Your task to perform on an android device: Check the price on the Dyson V11 Motorhead on Best Buy Image 0: 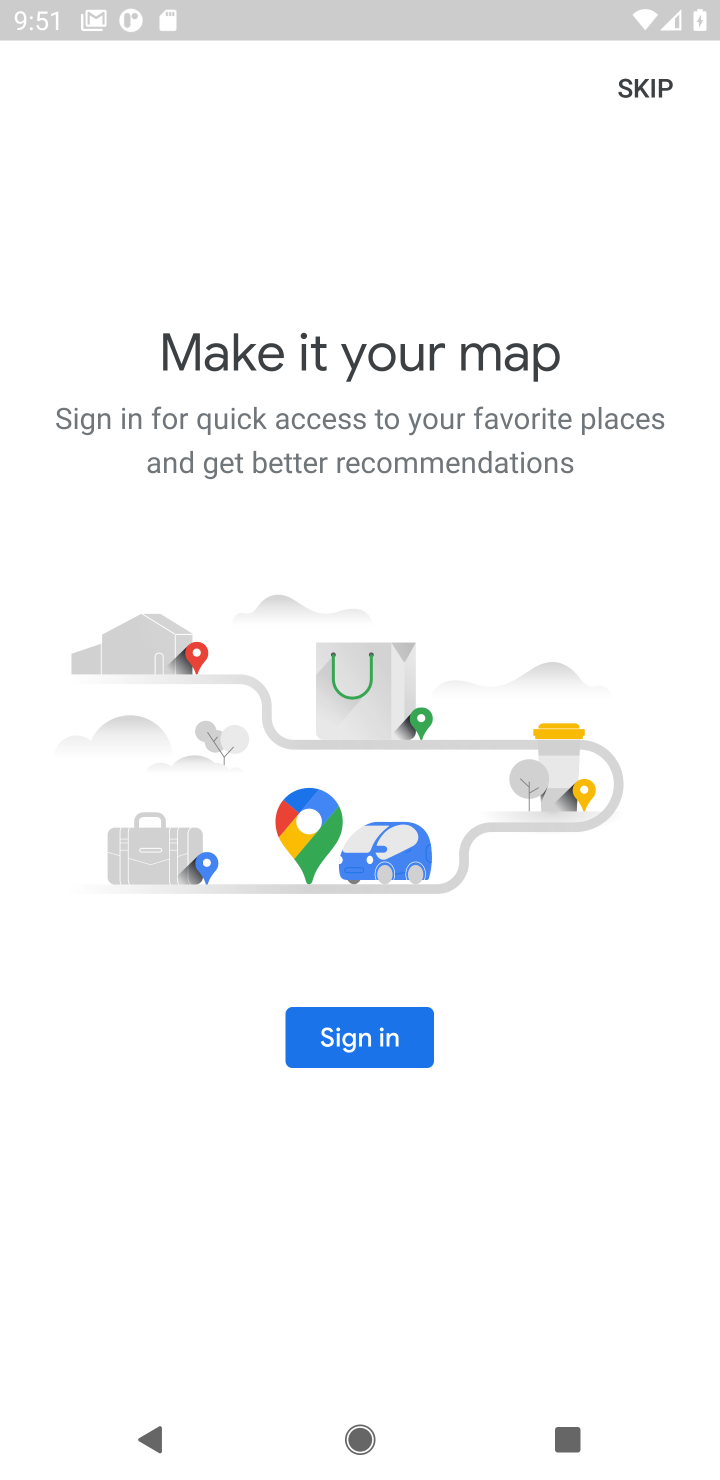
Step 0: click (636, 77)
Your task to perform on an android device: Check the price on the Dyson V11 Motorhead on Best Buy Image 1: 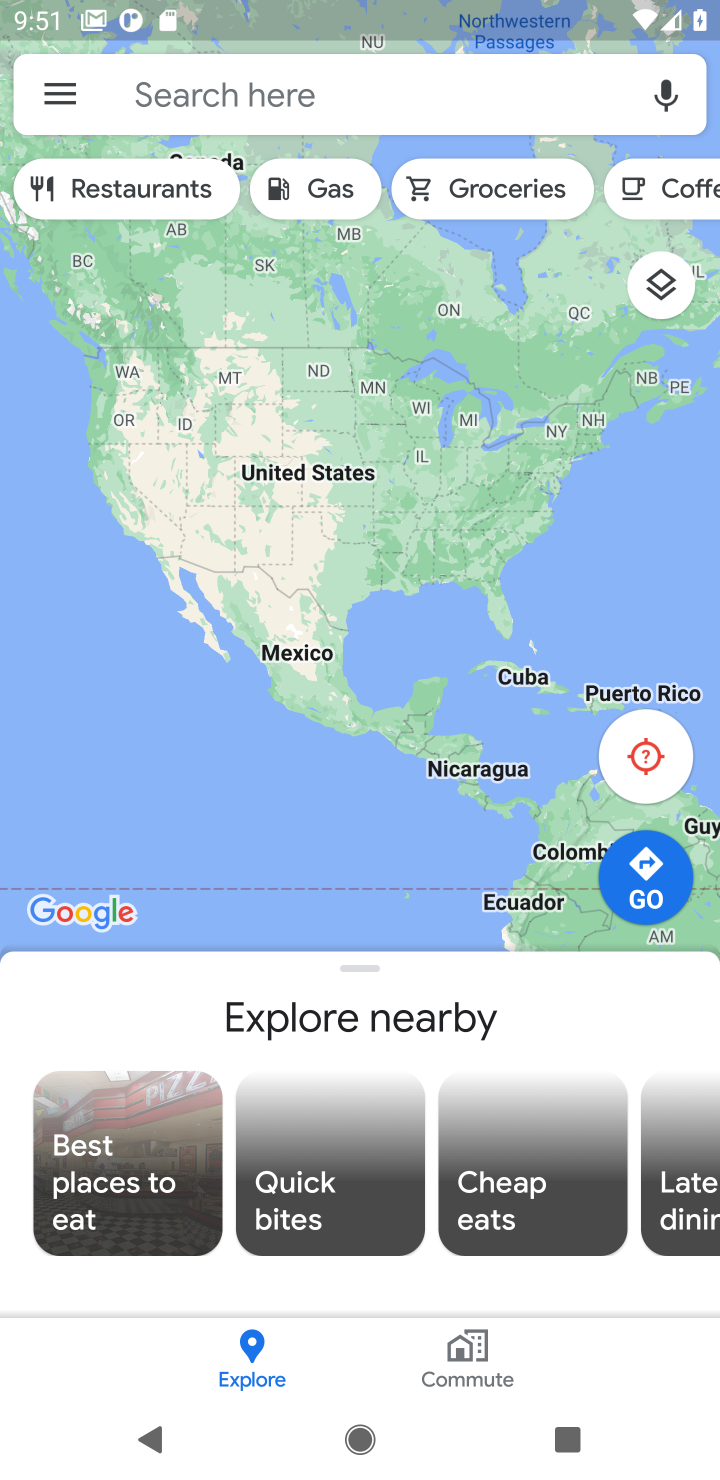
Step 1: press home button
Your task to perform on an android device: Check the price on the Dyson V11 Motorhead on Best Buy Image 2: 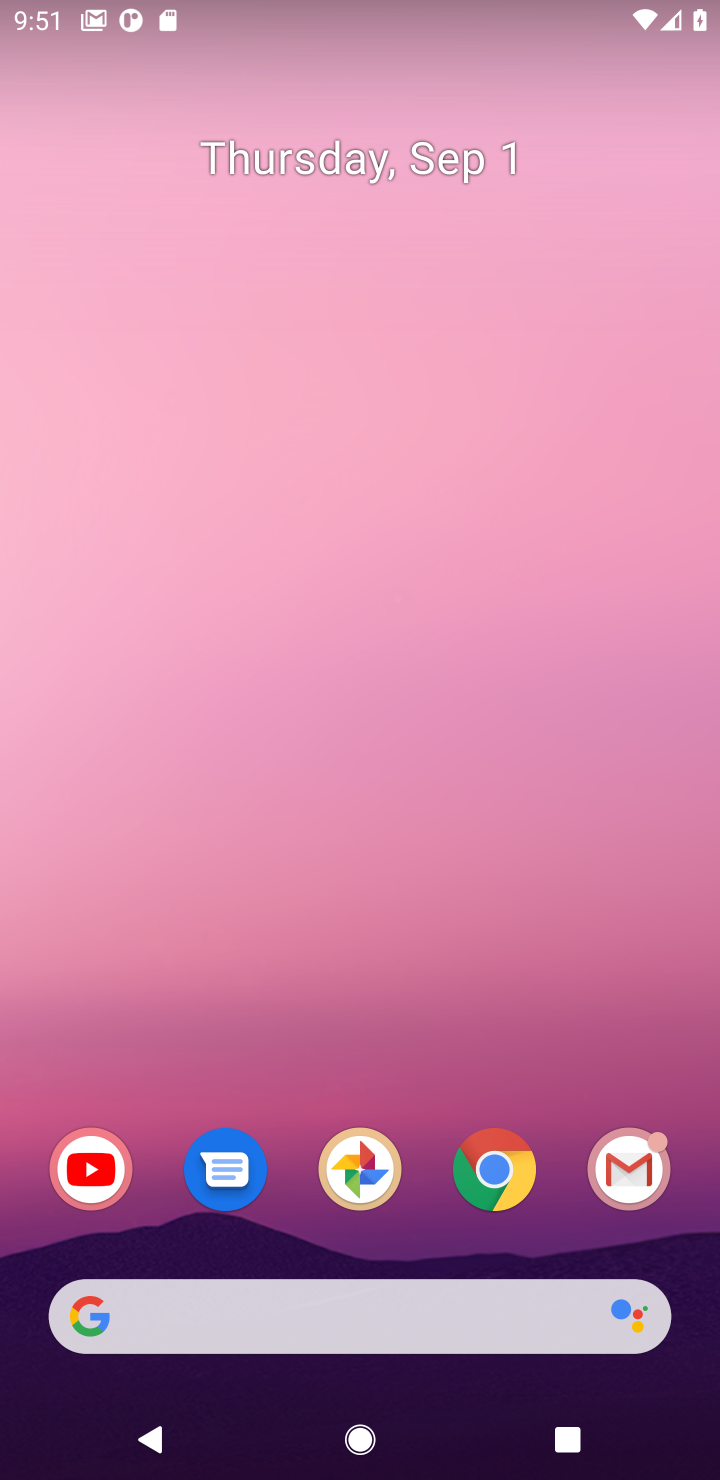
Step 2: drag from (408, 1101) to (442, 8)
Your task to perform on an android device: Check the price on the Dyson V11 Motorhead on Best Buy Image 3: 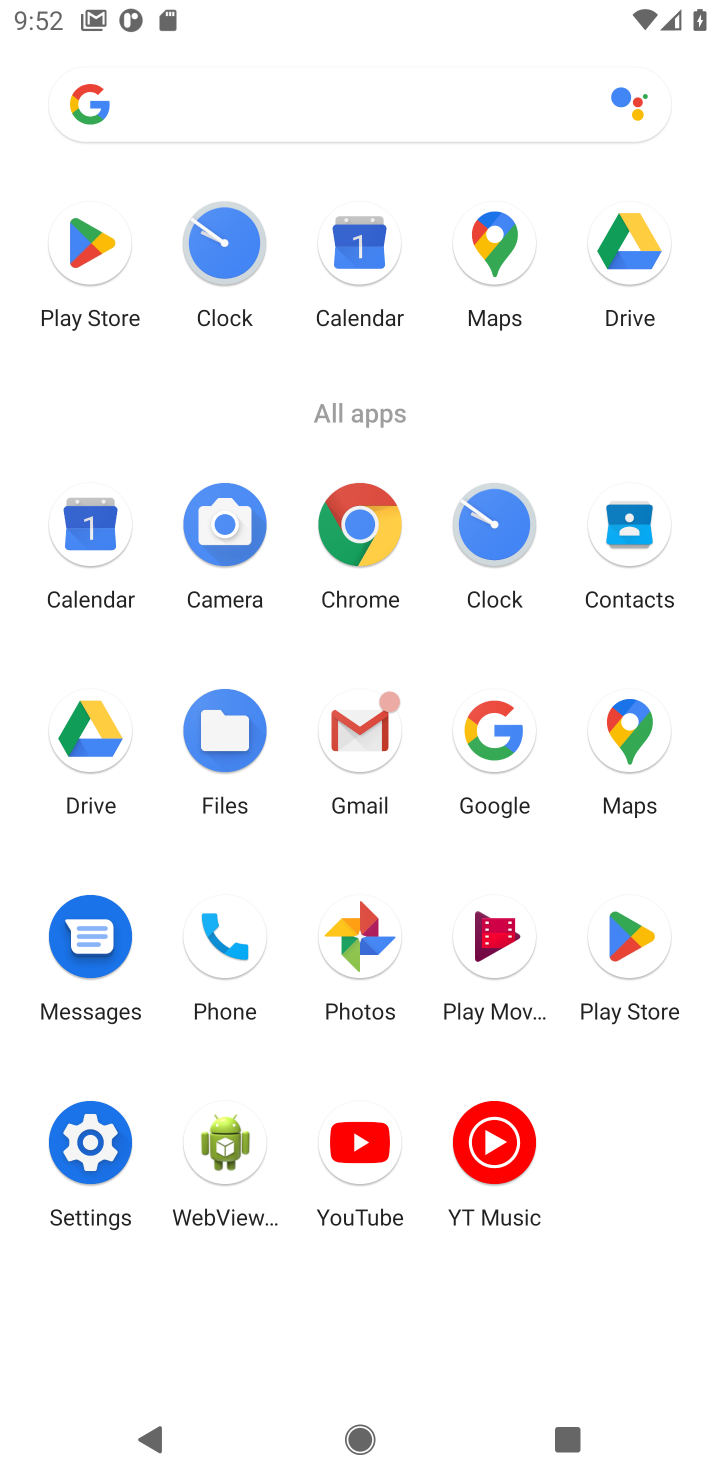
Step 3: click (353, 496)
Your task to perform on an android device: Check the price on the Dyson V11 Motorhead on Best Buy Image 4: 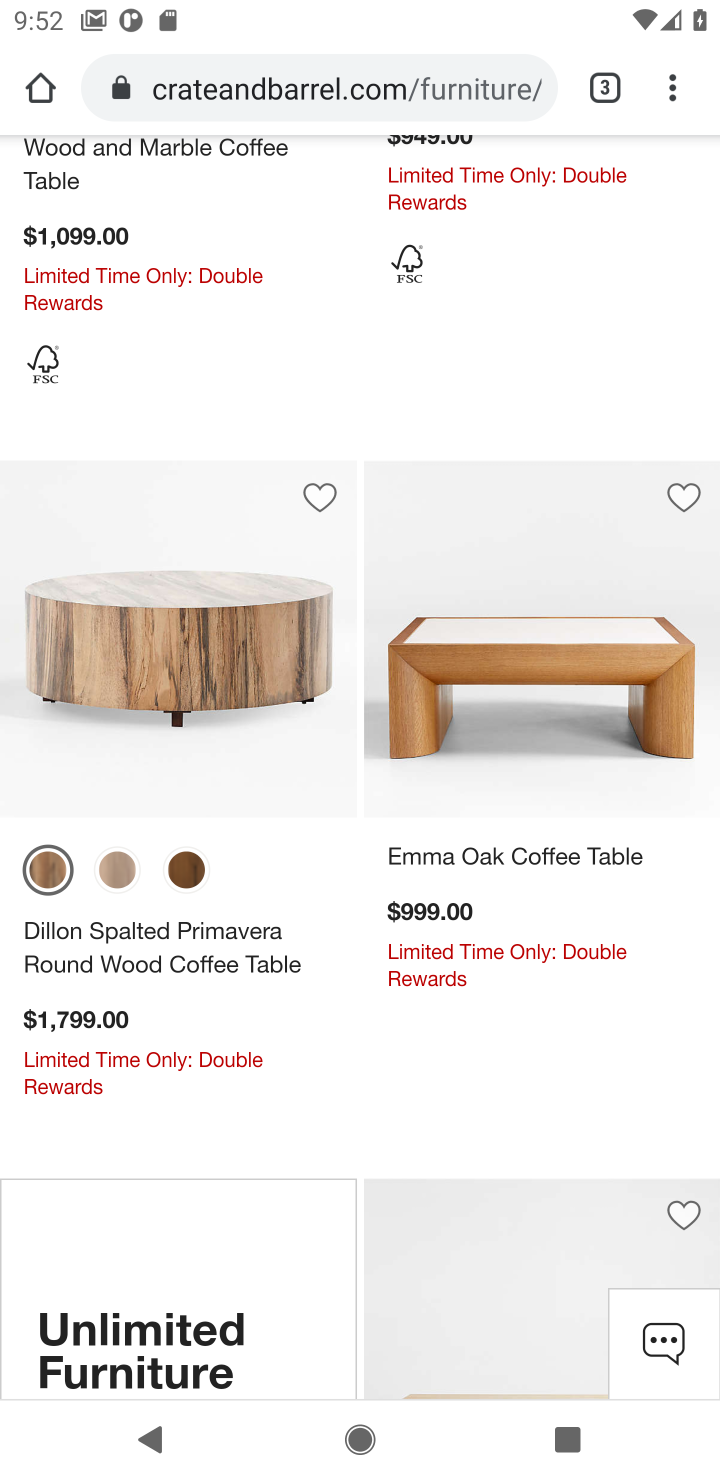
Step 4: drag from (367, 1148) to (557, 55)
Your task to perform on an android device: Check the price on the Dyson V11 Motorhead on Best Buy Image 5: 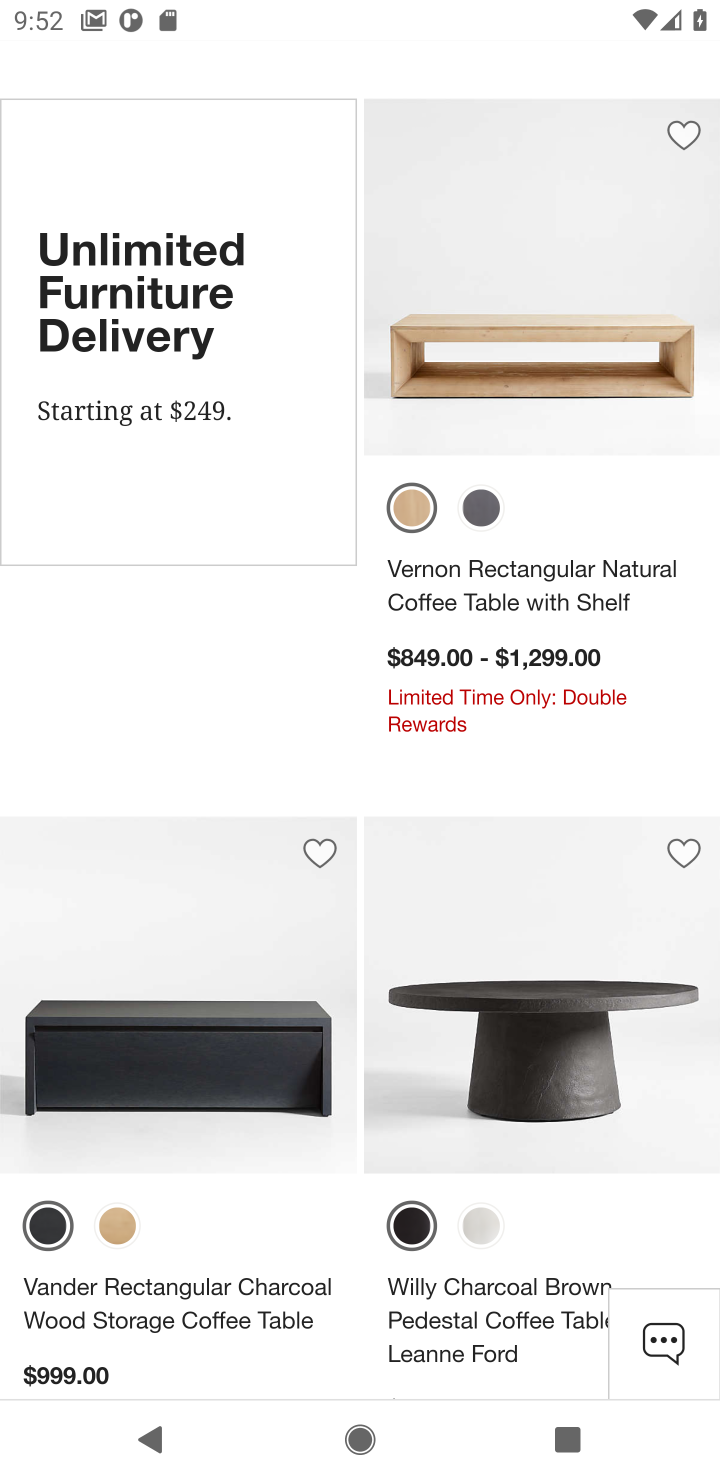
Step 5: drag from (352, 205) to (269, 1125)
Your task to perform on an android device: Check the price on the Dyson V11 Motorhead on Best Buy Image 6: 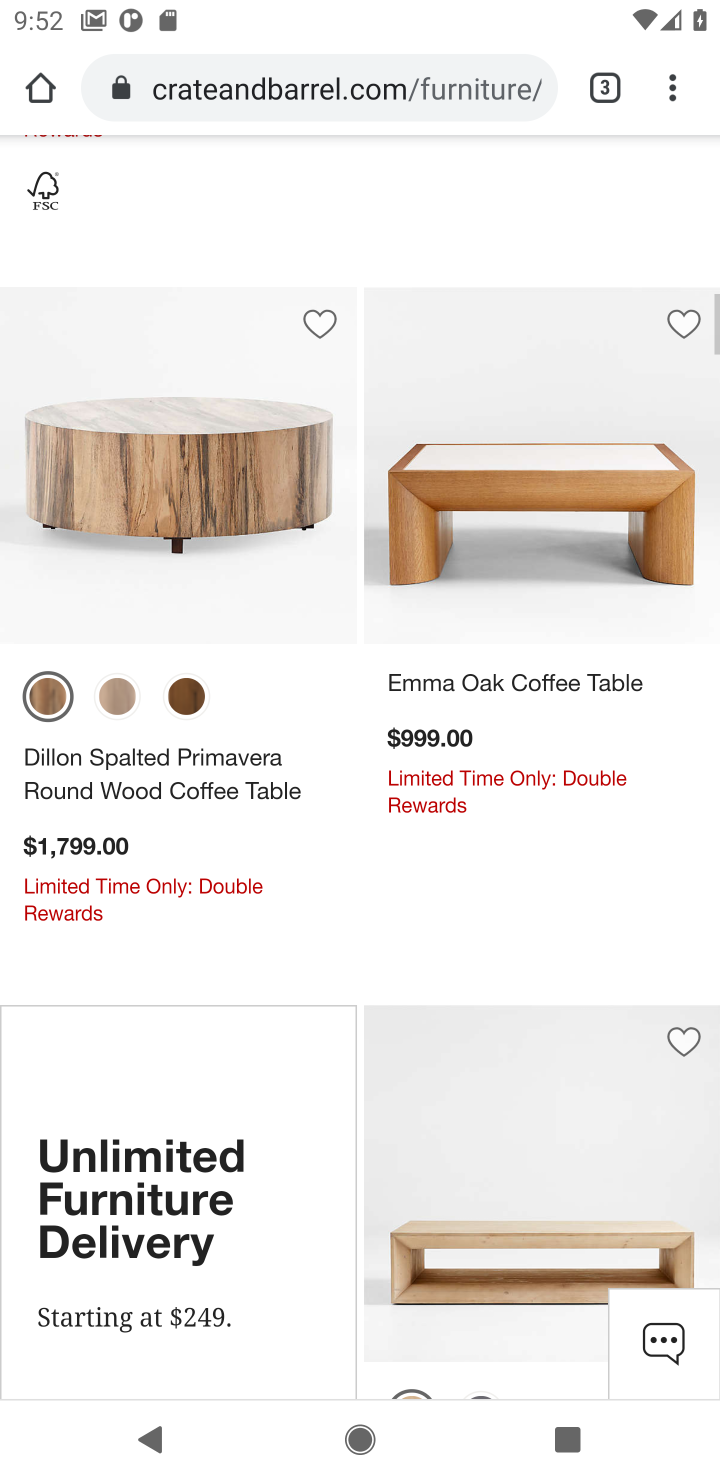
Step 6: click (317, 92)
Your task to perform on an android device: Check the price on the Dyson V11 Motorhead on Best Buy Image 7: 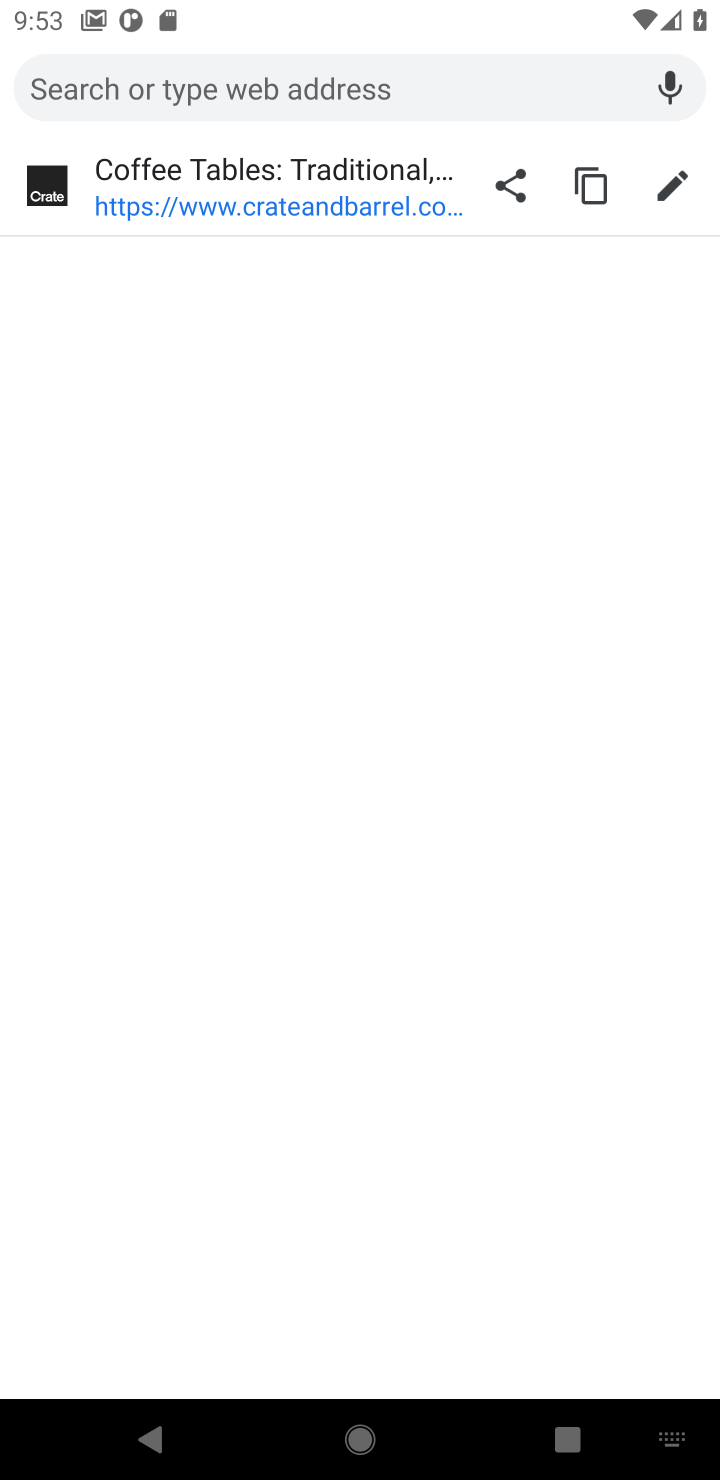
Step 7: type "price on the Dyson V11 Motorhead on Best Buy"
Your task to perform on an android device: Check the price on the Dyson V11 Motorhead on Best Buy Image 8: 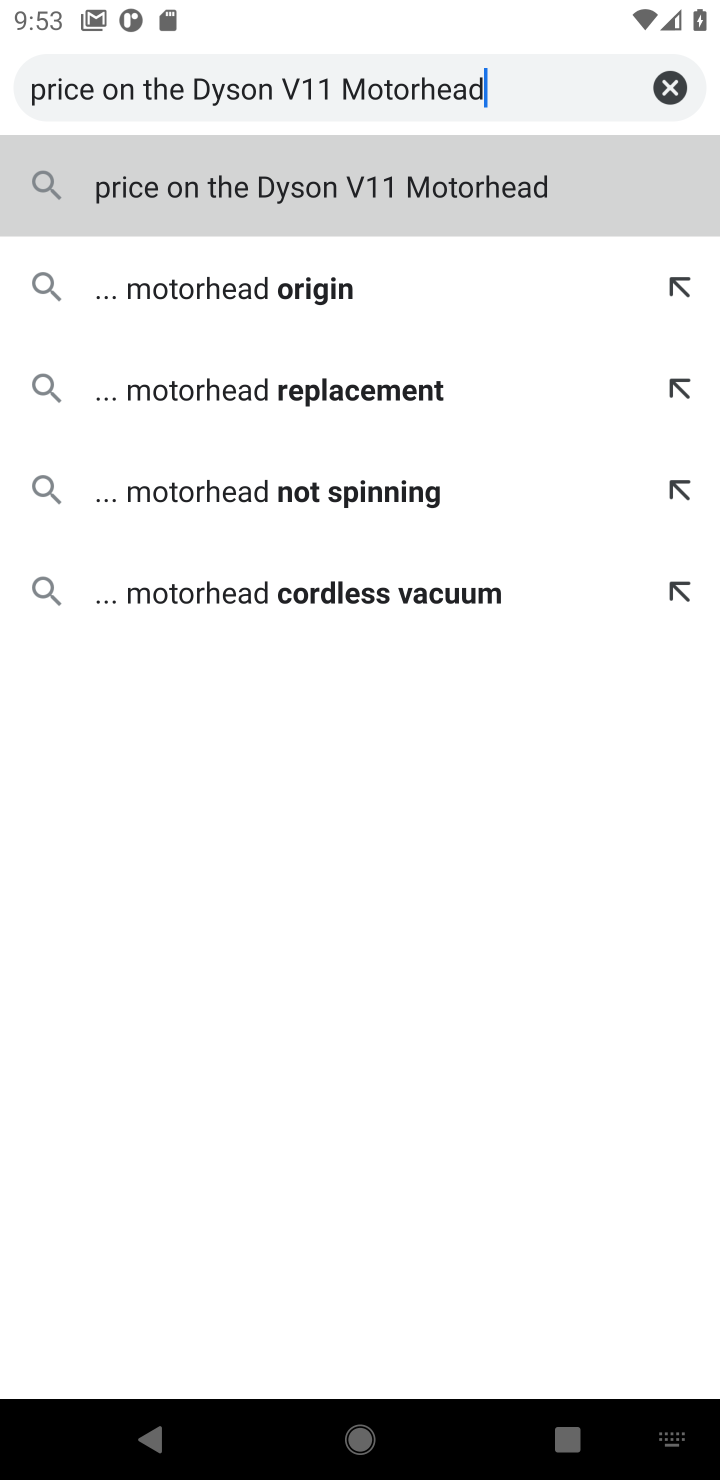
Step 8: type " on Best Buy"
Your task to perform on an android device: Check the price on the Dyson V11 Motorhead on Best Buy Image 9: 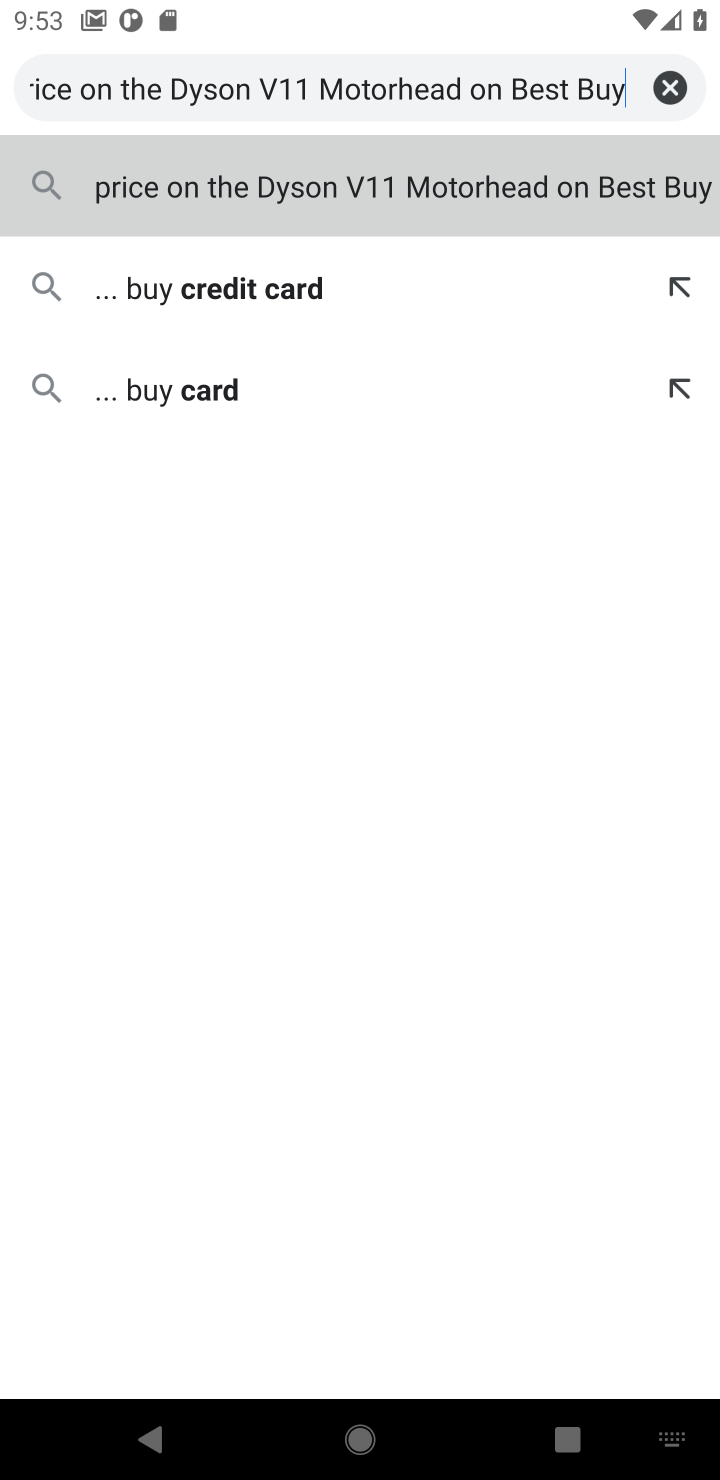
Step 9: click (411, 199)
Your task to perform on an android device: Check the price on the Dyson V11 Motorhead on Best Buy Image 10: 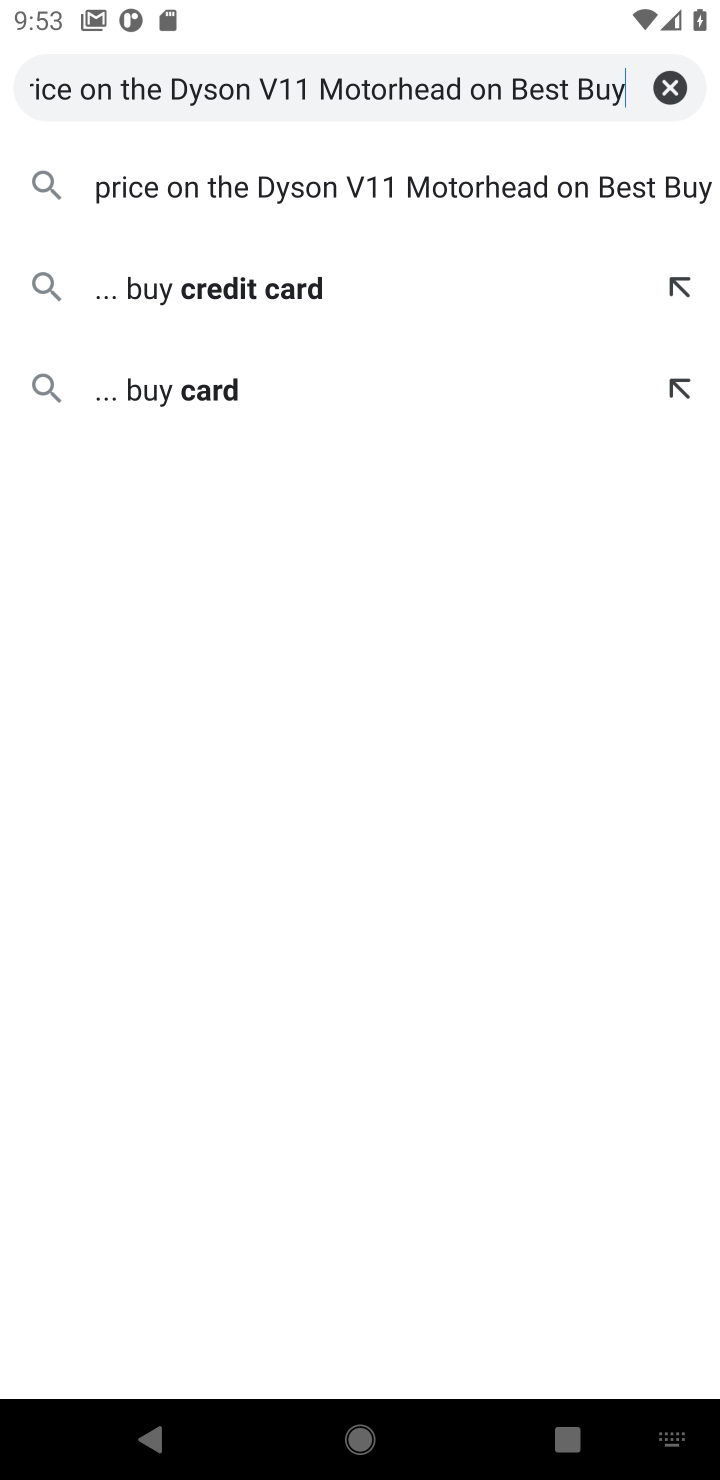
Step 10: click (293, 190)
Your task to perform on an android device: Check the price on the Dyson V11 Motorhead on Best Buy Image 11: 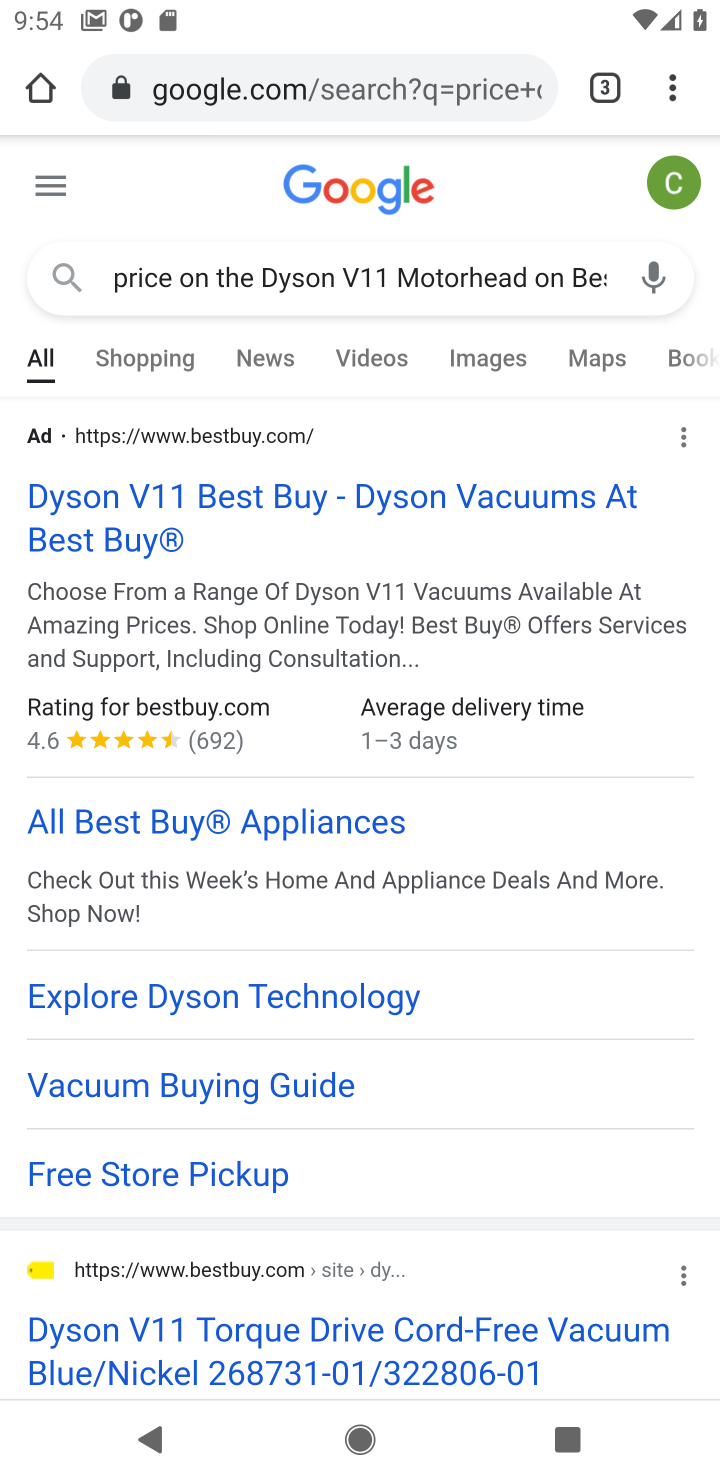
Step 11: drag from (391, 1254) to (451, 267)
Your task to perform on an android device: Check the price on the Dyson V11 Motorhead on Best Buy Image 12: 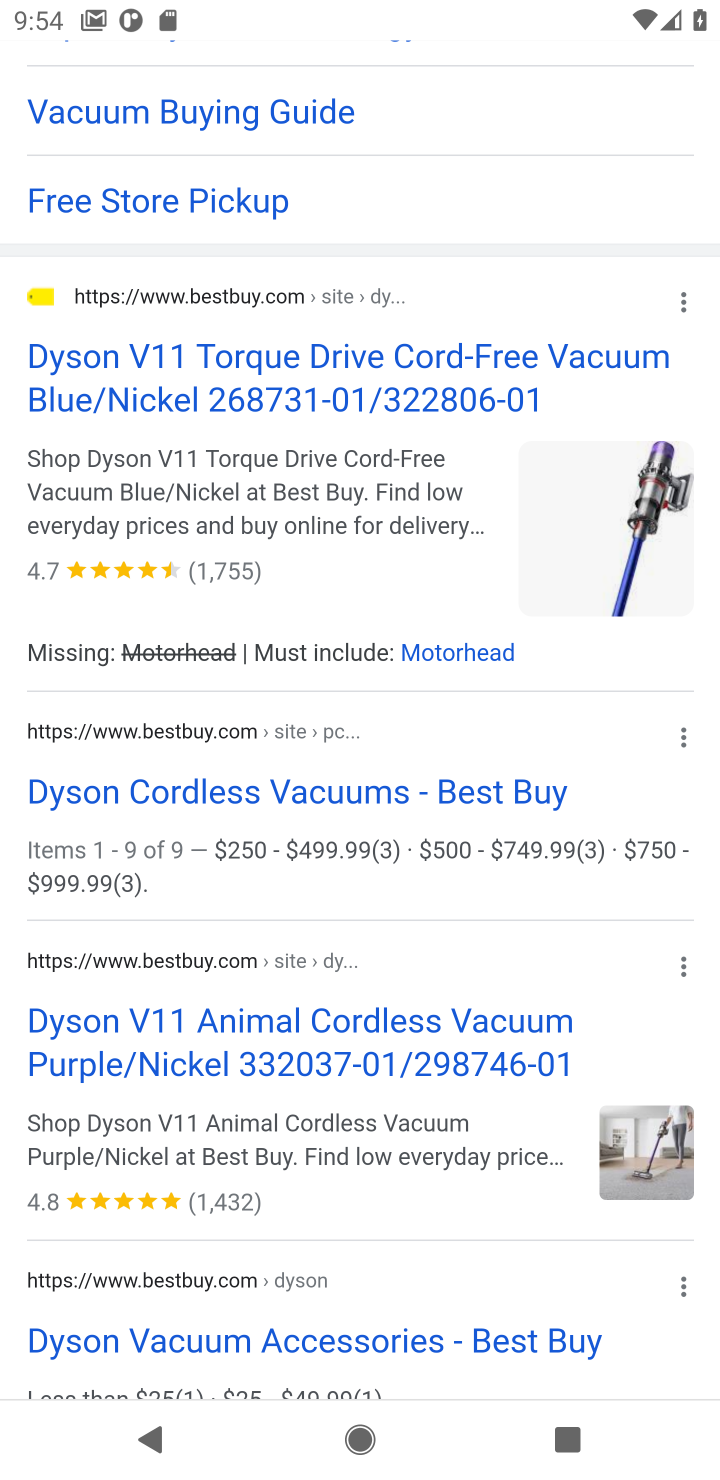
Step 12: drag from (332, 203) to (373, 976)
Your task to perform on an android device: Check the price on the Dyson V11 Motorhead on Best Buy Image 13: 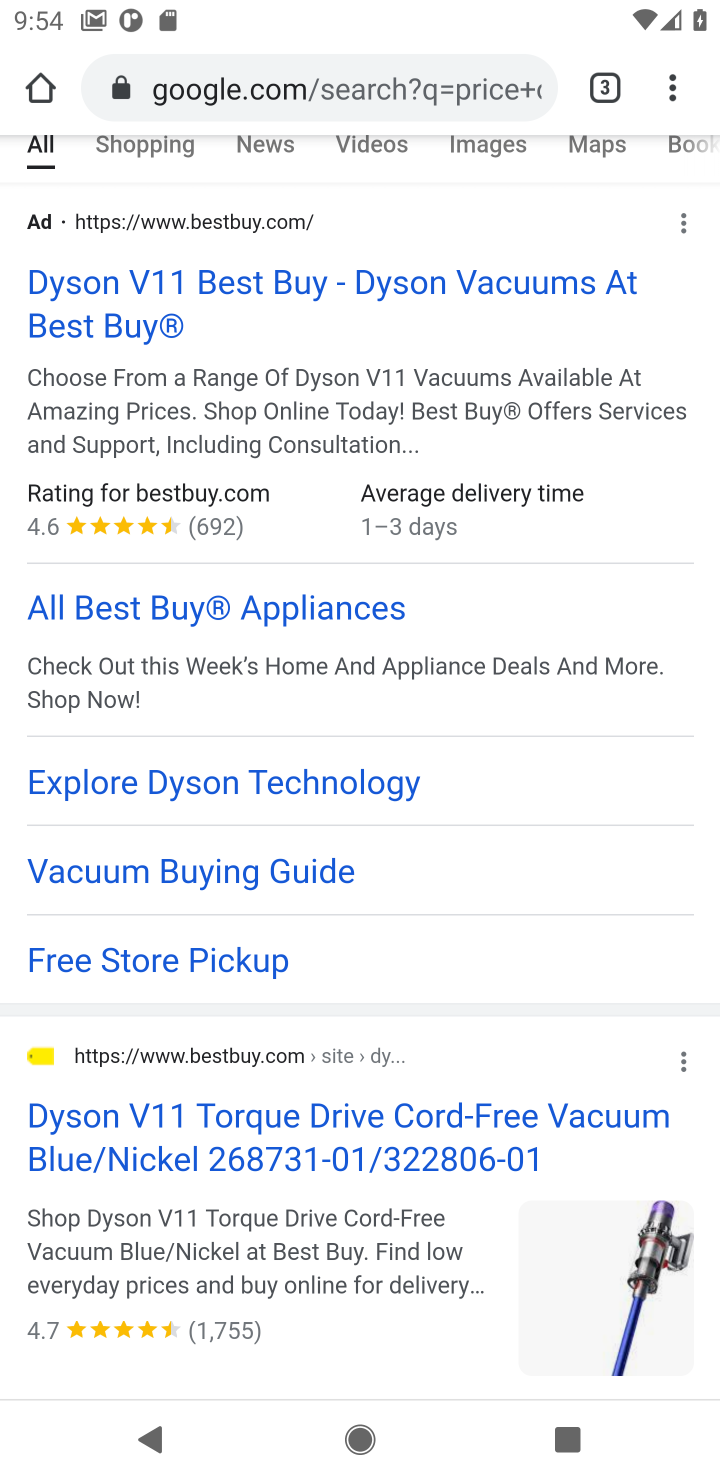
Step 13: click (296, 286)
Your task to perform on an android device: Check the price on the Dyson V11 Motorhead on Best Buy Image 14: 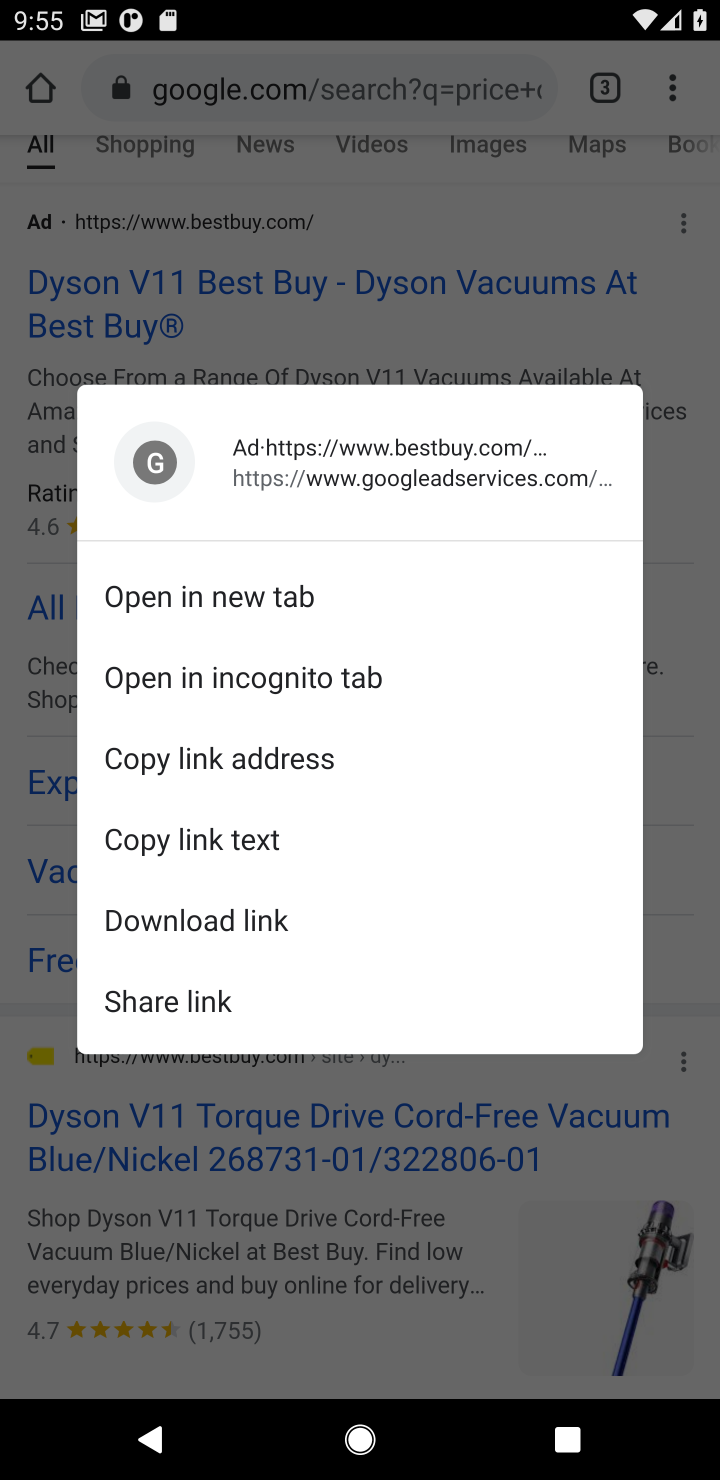
Step 14: click (199, 272)
Your task to perform on an android device: Check the price on the Dyson V11 Motorhead on Best Buy Image 15: 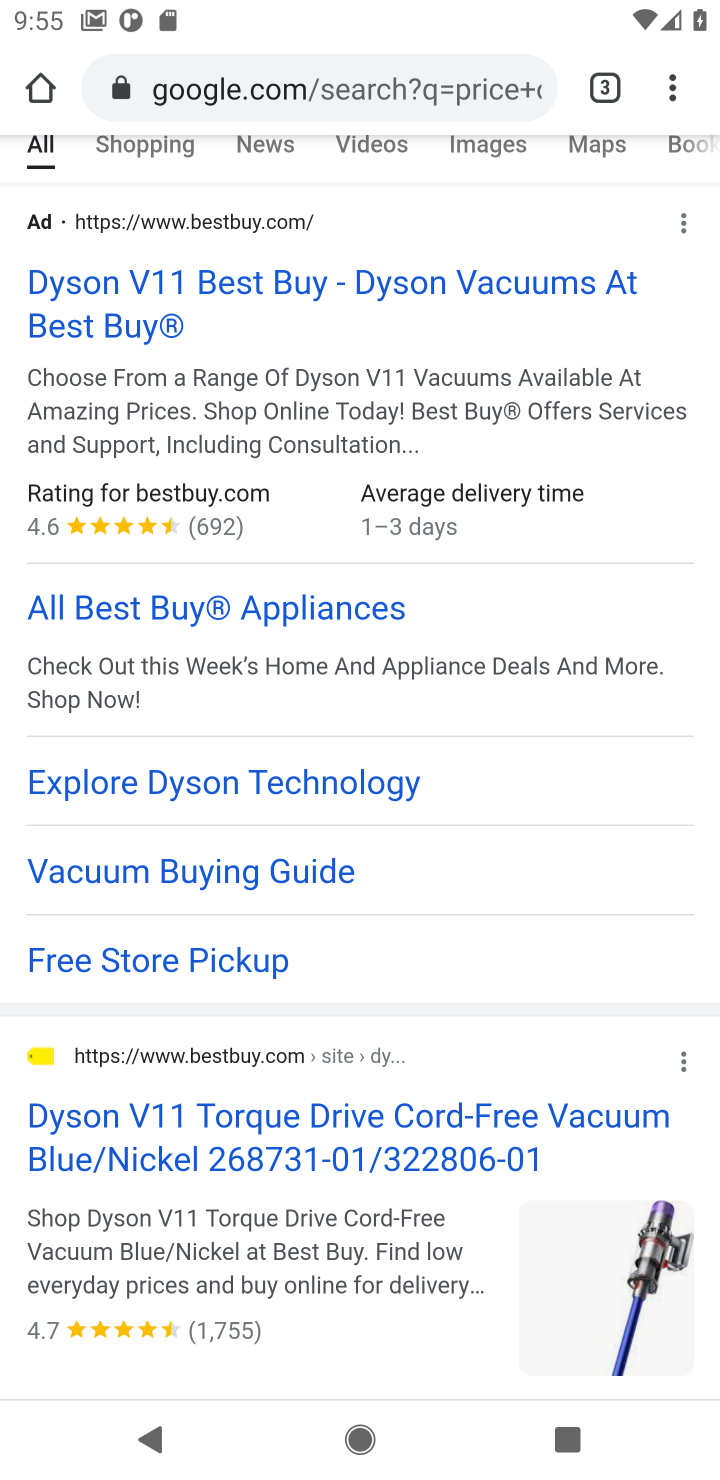
Step 15: click (117, 277)
Your task to perform on an android device: Check the price on the Dyson V11 Motorhead on Best Buy Image 16: 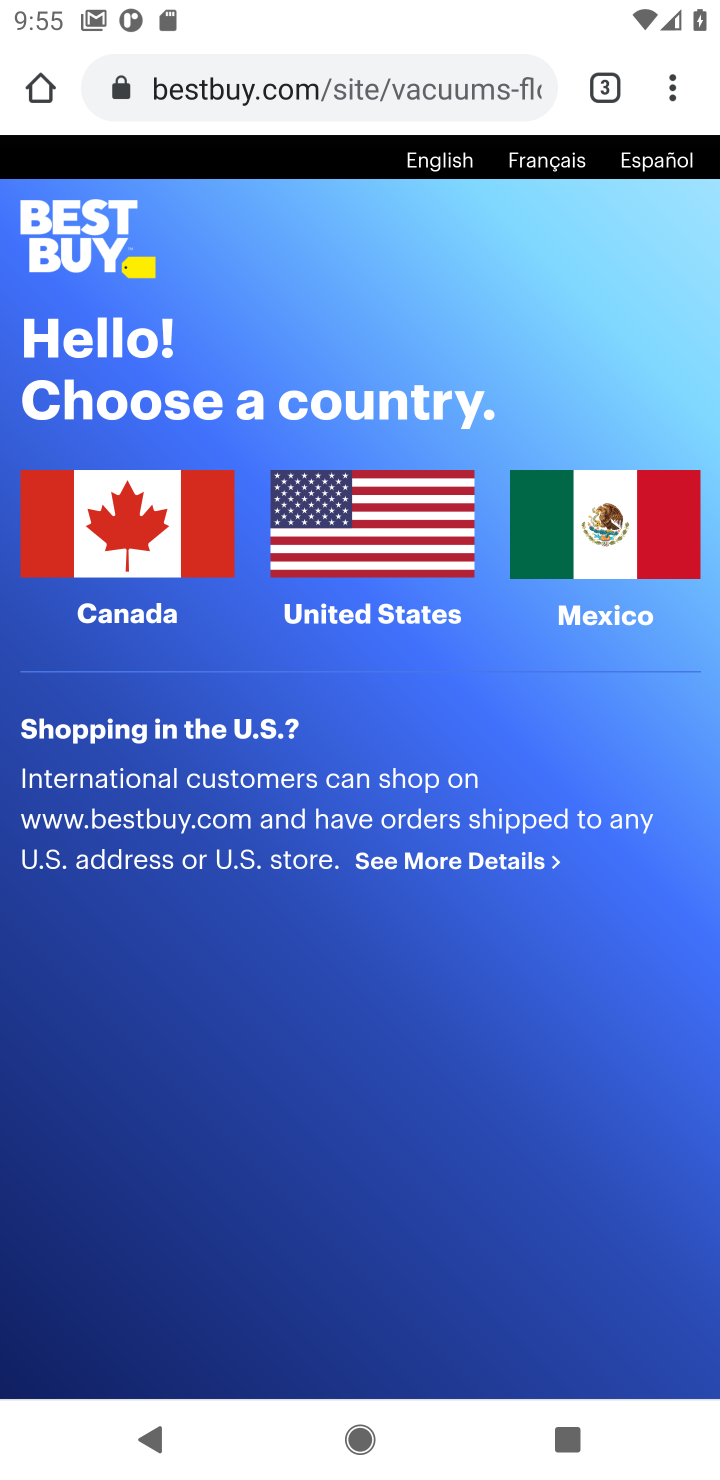
Step 16: click (376, 532)
Your task to perform on an android device: Check the price on the Dyson V11 Motorhead on Best Buy Image 17: 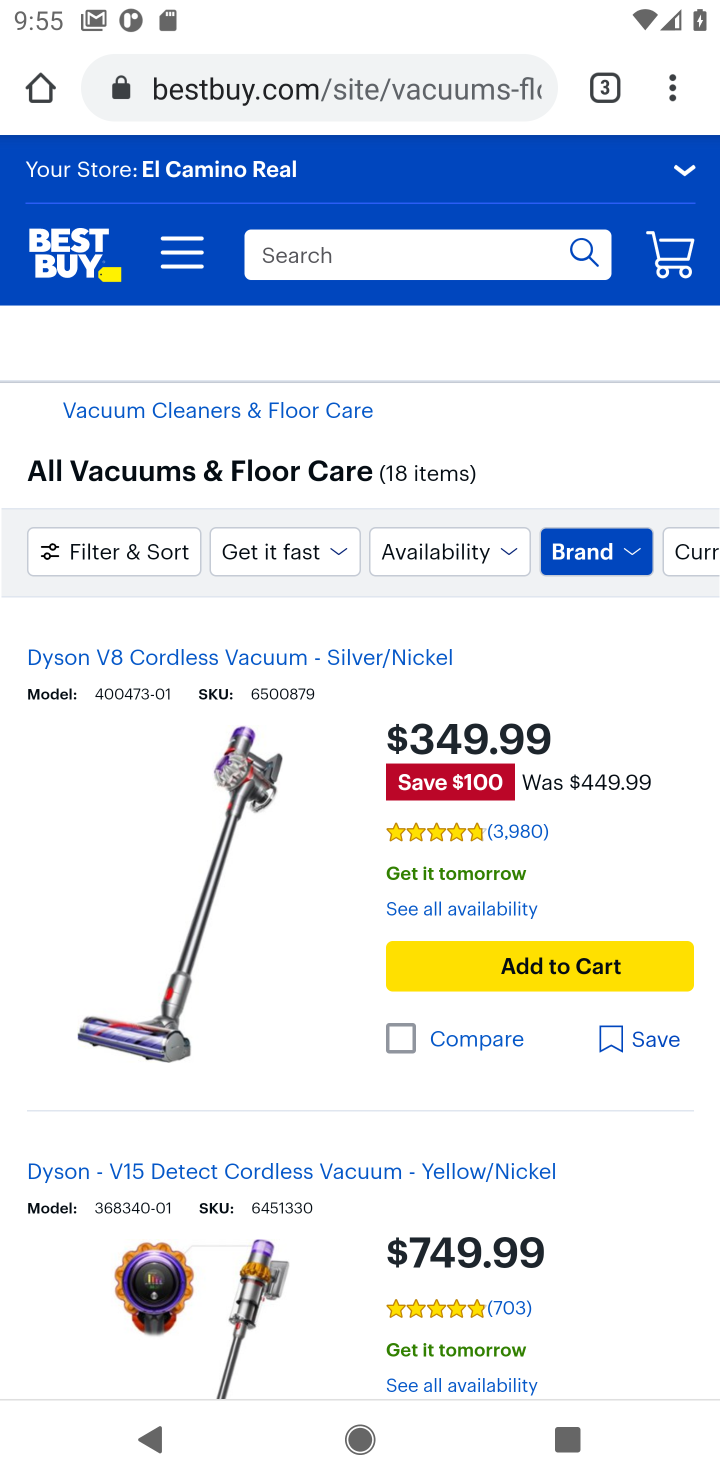
Step 17: task complete